Your task to perform on an android device: Open location settings Image 0: 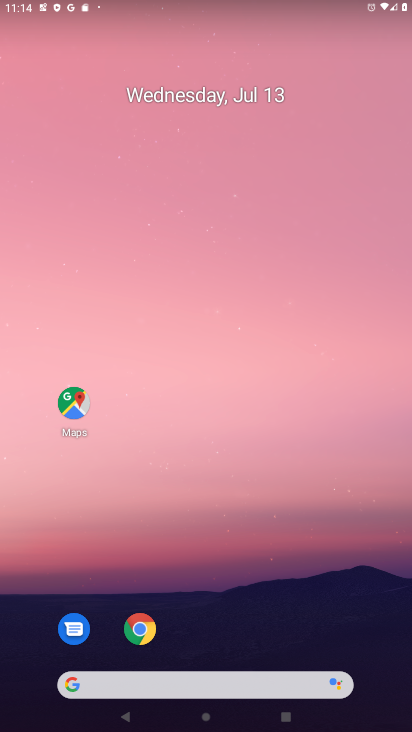
Step 0: drag from (255, 638) to (256, 42)
Your task to perform on an android device: Open location settings Image 1: 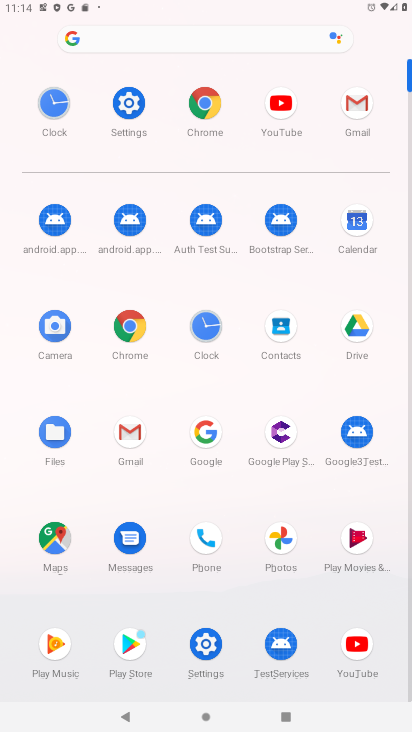
Step 1: click (138, 108)
Your task to perform on an android device: Open location settings Image 2: 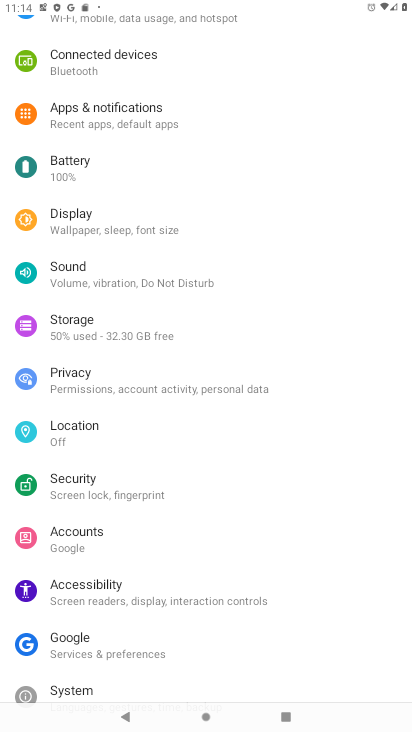
Step 2: click (116, 418)
Your task to perform on an android device: Open location settings Image 3: 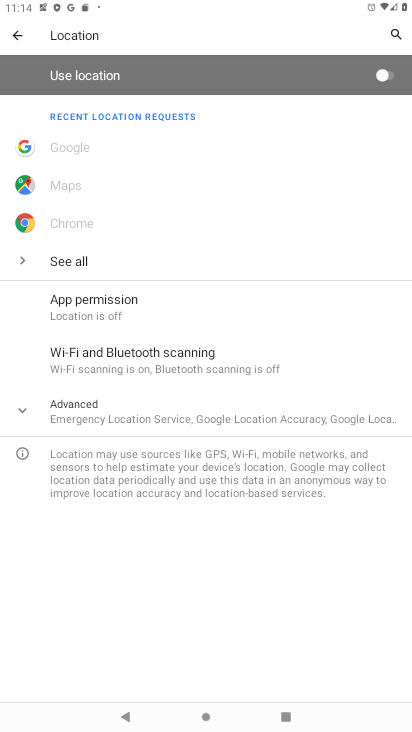
Step 3: click (149, 411)
Your task to perform on an android device: Open location settings Image 4: 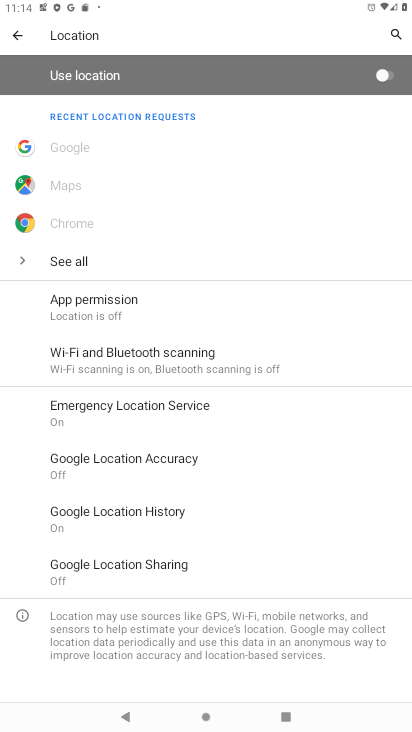
Step 4: task complete